Your task to perform on an android device: Open calendar and show me the third week of next month Image 0: 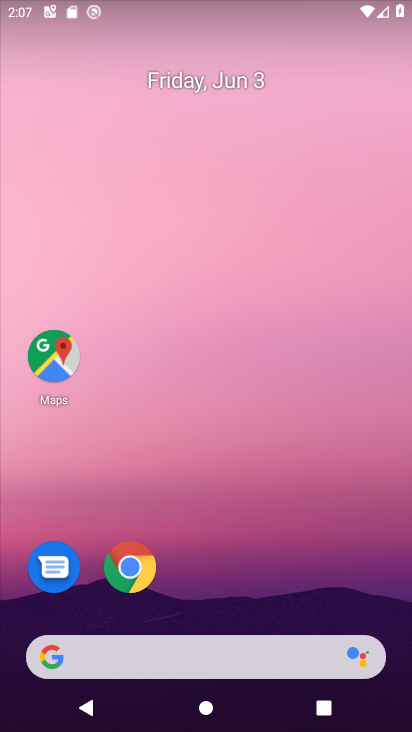
Step 0: drag from (248, 444) to (234, 262)
Your task to perform on an android device: Open calendar and show me the third week of next month Image 1: 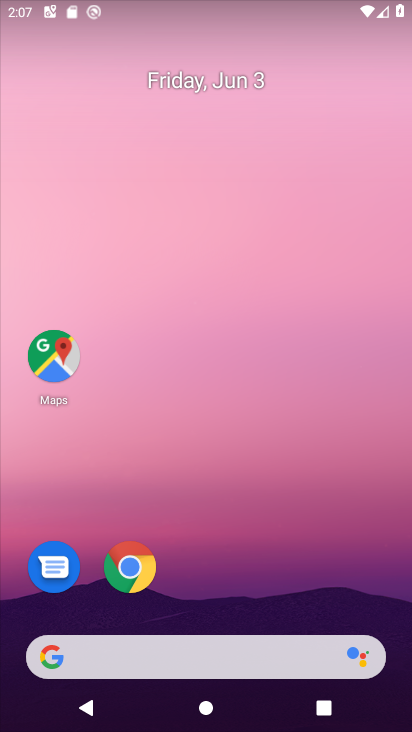
Step 1: drag from (191, 542) to (178, 180)
Your task to perform on an android device: Open calendar and show me the third week of next month Image 2: 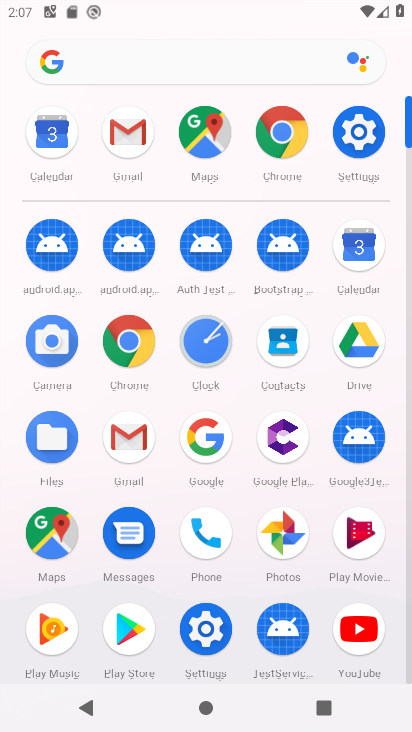
Step 2: click (352, 245)
Your task to perform on an android device: Open calendar and show me the third week of next month Image 3: 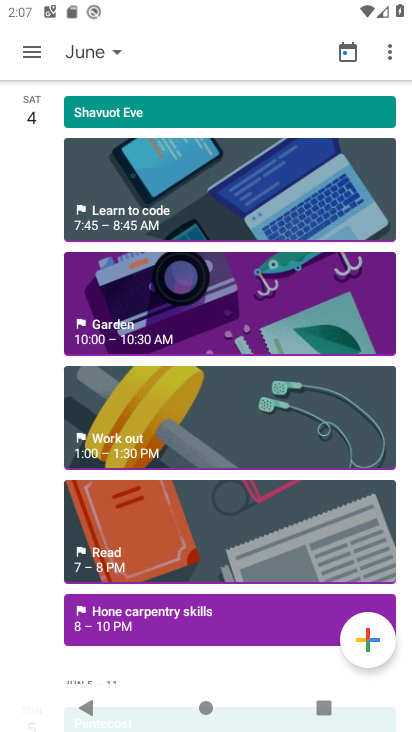
Step 3: click (21, 48)
Your task to perform on an android device: Open calendar and show me the third week of next month Image 4: 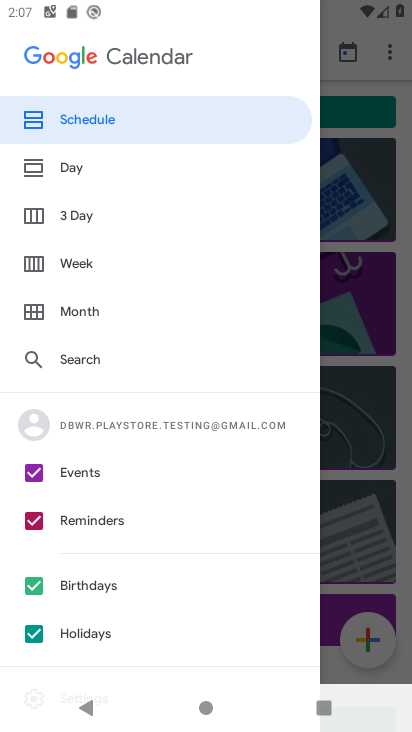
Step 4: click (107, 322)
Your task to perform on an android device: Open calendar and show me the third week of next month Image 5: 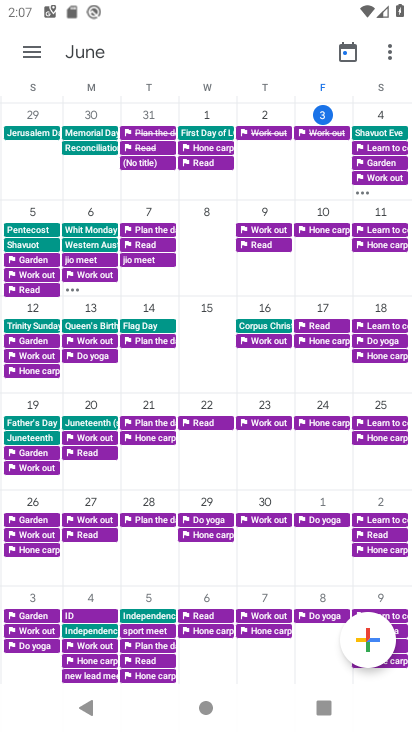
Step 5: task complete